Your task to perform on an android device: open app "Adobe Acrobat Reader: Edit PDF" (install if not already installed) Image 0: 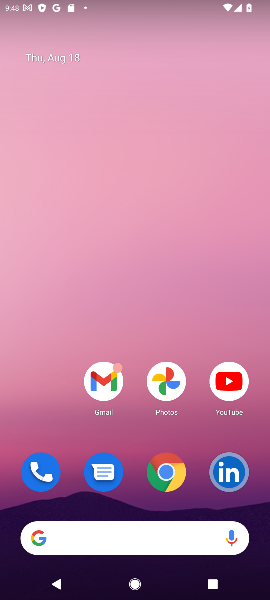
Step 0: drag from (208, 341) to (176, 93)
Your task to perform on an android device: open app "Adobe Acrobat Reader: Edit PDF" (install if not already installed) Image 1: 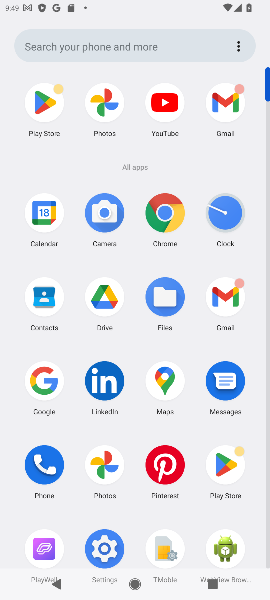
Step 1: click (47, 115)
Your task to perform on an android device: open app "Adobe Acrobat Reader: Edit PDF" (install if not already installed) Image 2: 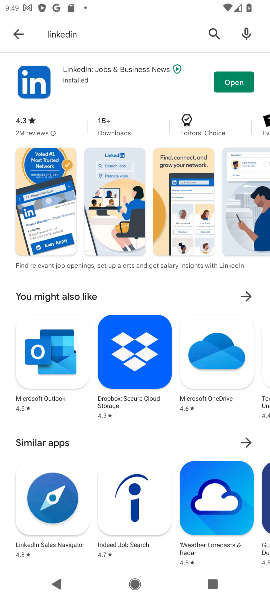
Step 2: click (210, 28)
Your task to perform on an android device: open app "Adobe Acrobat Reader: Edit PDF" (install if not already installed) Image 3: 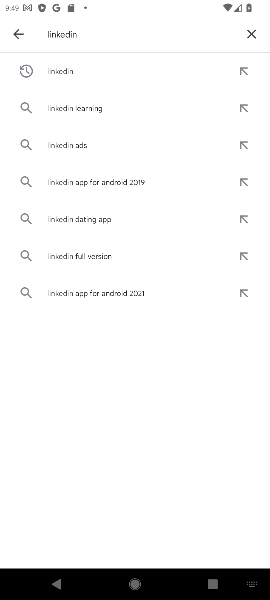
Step 3: click (253, 32)
Your task to perform on an android device: open app "Adobe Acrobat Reader: Edit PDF" (install if not already installed) Image 4: 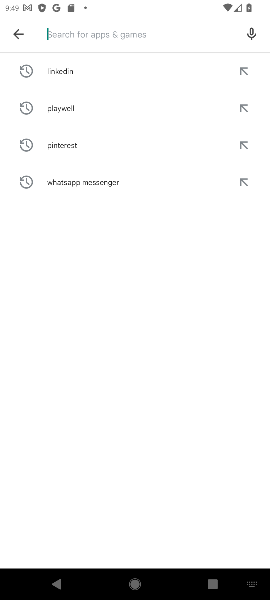
Step 4: type "adobe acrobat reader"
Your task to perform on an android device: open app "Adobe Acrobat Reader: Edit PDF" (install if not already installed) Image 5: 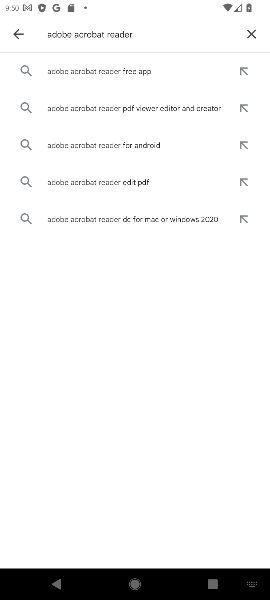
Step 5: click (152, 70)
Your task to perform on an android device: open app "Adobe Acrobat Reader: Edit PDF" (install if not already installed) Image 6: 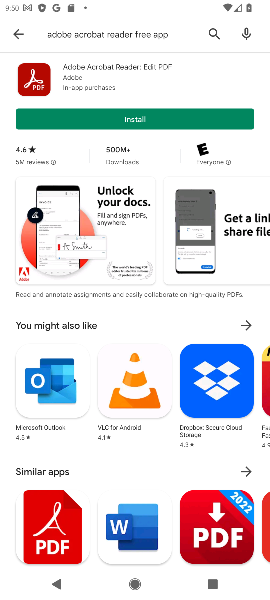
Step 6: click (177, 120)
Your task to perform on an android device: open app "Adobe Acrobat Reader: Edit PDF" (install if not already installed) Image 7: 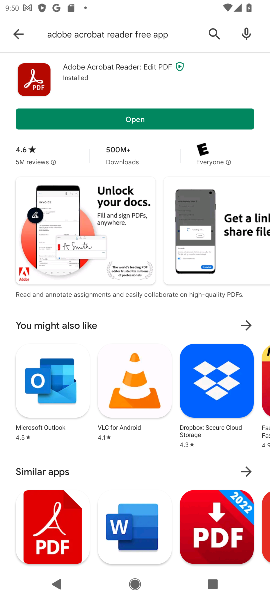
Step 7: click (165, 122)
Your task to perform on an android device: open app "Adobe Acrobat Reader: Edit PDF" (install if not already installed) Image 8: 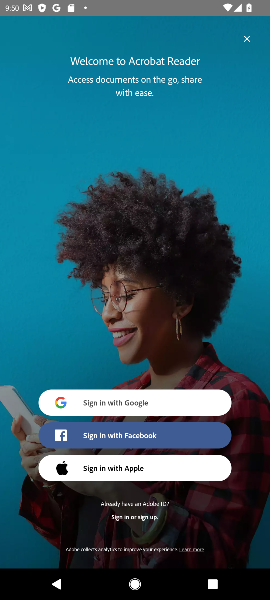
Step 8: task complete